Your task to perform on an android device: find which apps use the phone's location Image 0: 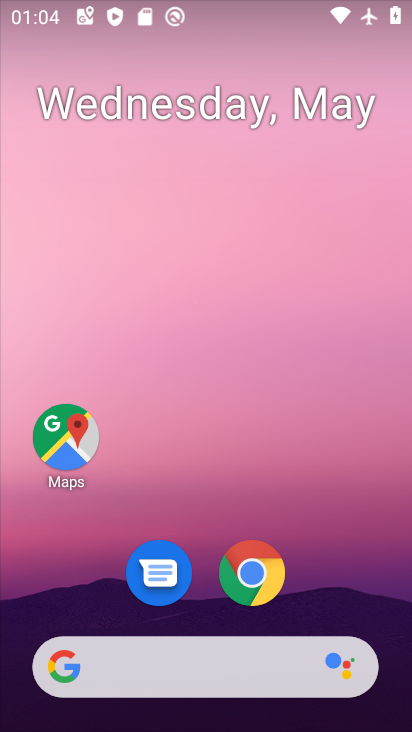
Step 0: drag from (313, 603) to (276, 279)
Your task to perform on an android device: find which apps use the phone's location Image 1: 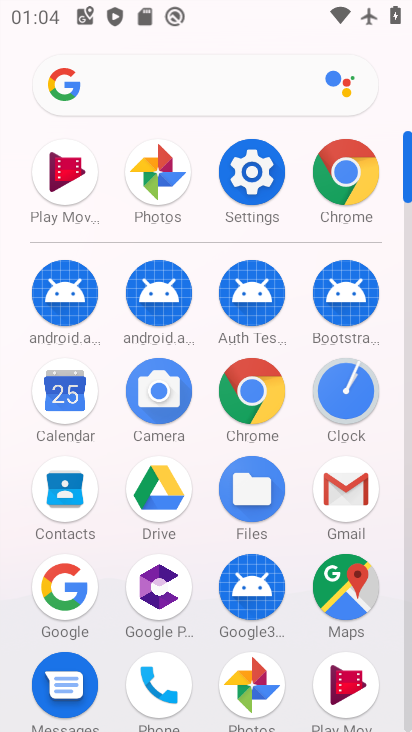
Step 1: click (236, 178)
Your task to perform on an android device: find which apps use the phone's location Image 2: 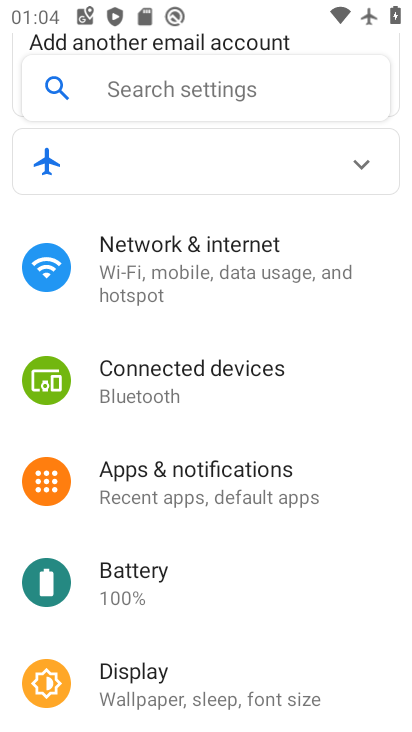
Step 2: drag from (189, 605) to (208, 244)
Your task to perform on an android device: find which apps use the phone's location Image 3: 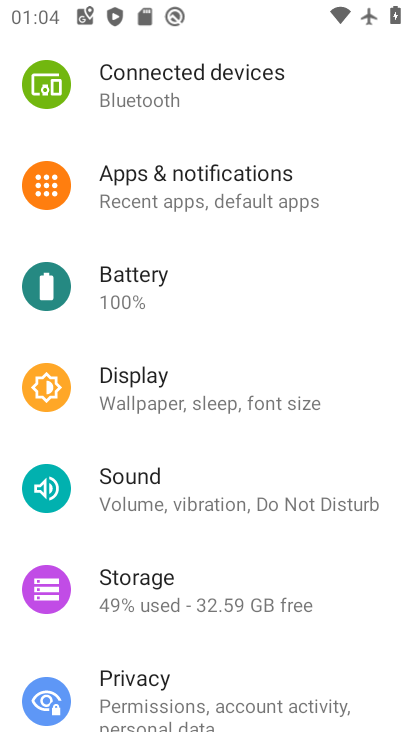
Step 3: drag from (210, 610) to (242, 183)
Your task to perform on an android device: find which apps use the phone's location Image 4: 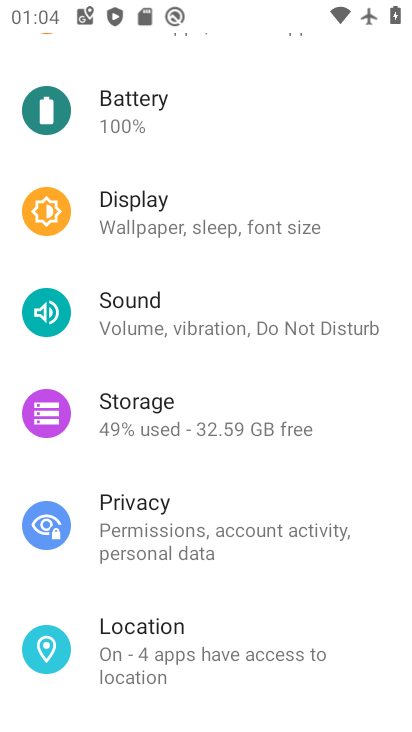
Step 4: click (186, 646)
Your task to perform on an android device: find which apps use the phone's location Image 5: 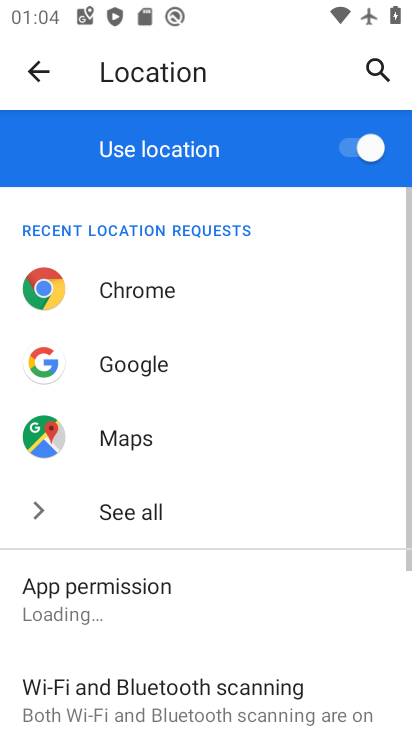
Step 5: drag from (203, 521) to (196, 245)
Your task to perform on an android device: find which apps use the phone's location Image 6: 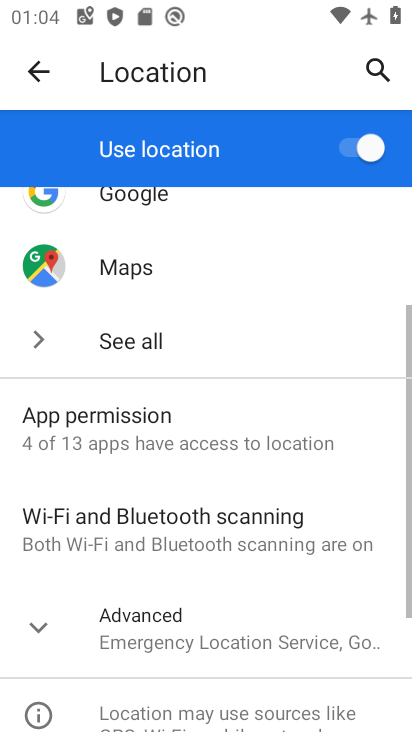
Step 6: click (151, 633)
Your task to perform on an android device: find which apps use the phone's location Image 7: 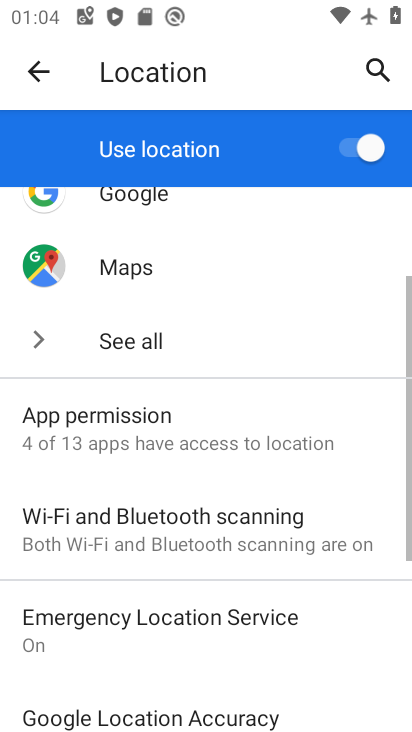
Step 7: task complete